Your task to perform on an android device: Go to battery settings Image 0: 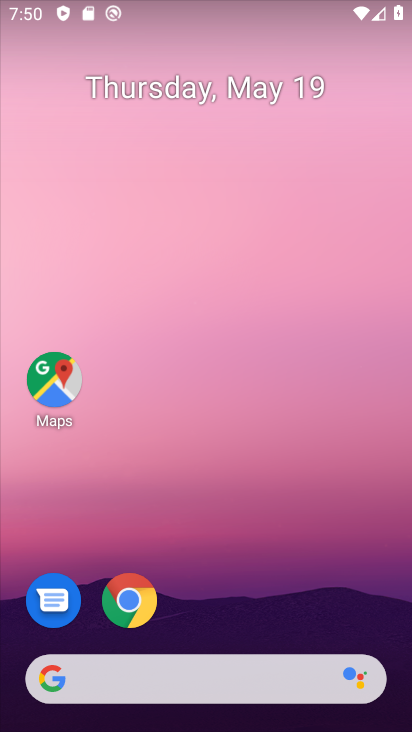
Step 0: drag from (316, 643) to (282, 38)
Your task to perform on an android device: Go to battery settings Image 1: 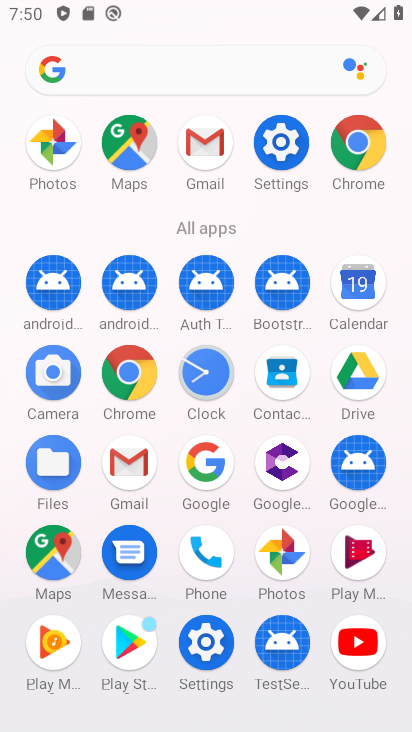
Step 1: click (274, 149)
Your task to perform on an android device: Go to battery settings Image 2: 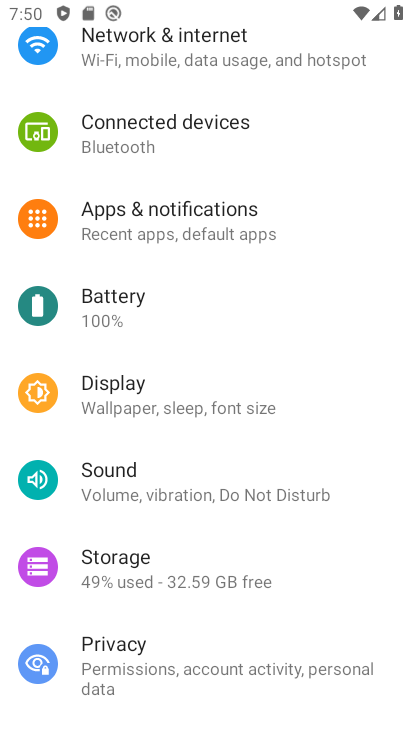
Step 2: click (123, 312)
Your task to perform on an android device: Go to battery settings Image 3: 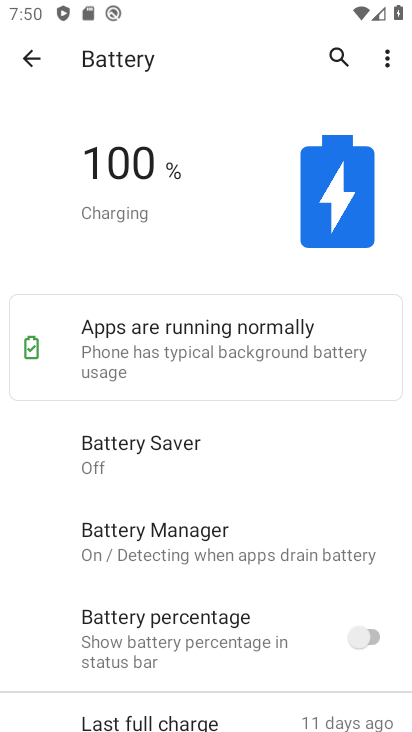
Step 3: task complete